Your task to perform on an android device: Open Google Chrome and open the bookmarks view Image 0: 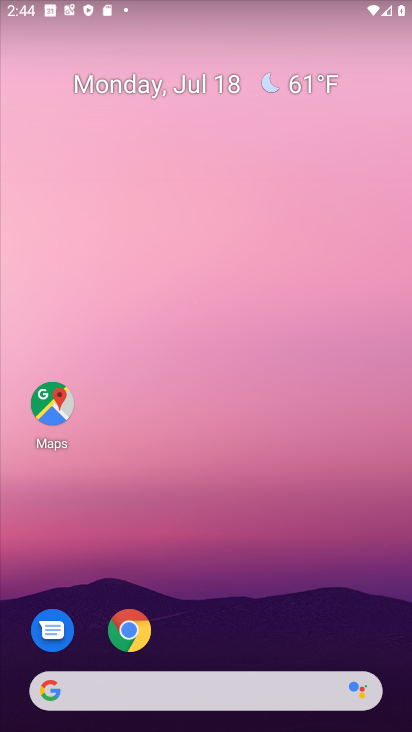
Step 0: click (132, 632)
Your task to perform on an android device: Open Google Chrome and open the bookmarks view Image 1: 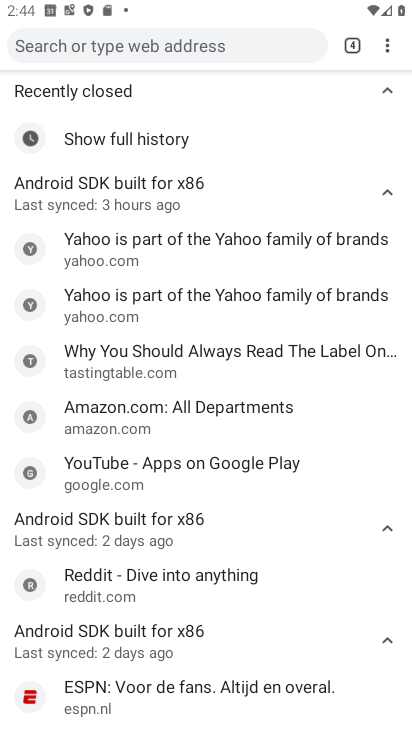
Step 1: click (384, 43)
Your task to perform on an android device: Open Google Chrome and open the bookmarks view Image 2: 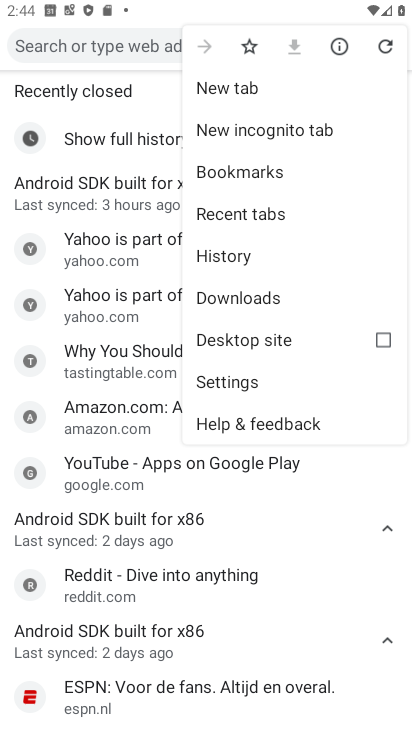
Step 2: click (272, 165)
Your task to perform on an android device: Open Google Chrome and open the bookmarks view Image 3: 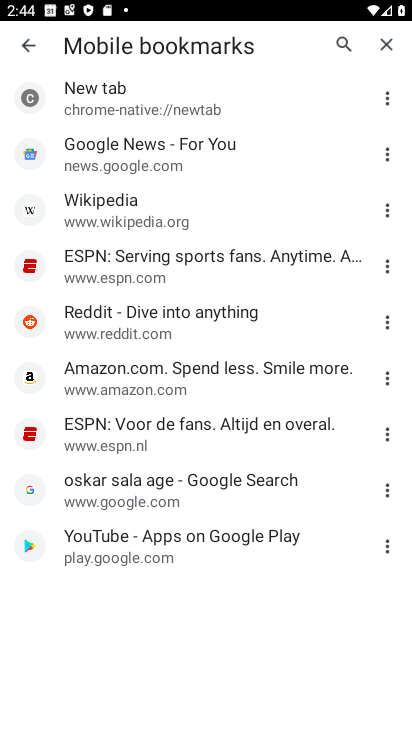
Step 3: task complete